Your task to perform on an android device: install app "Google Chrome" Image 0: 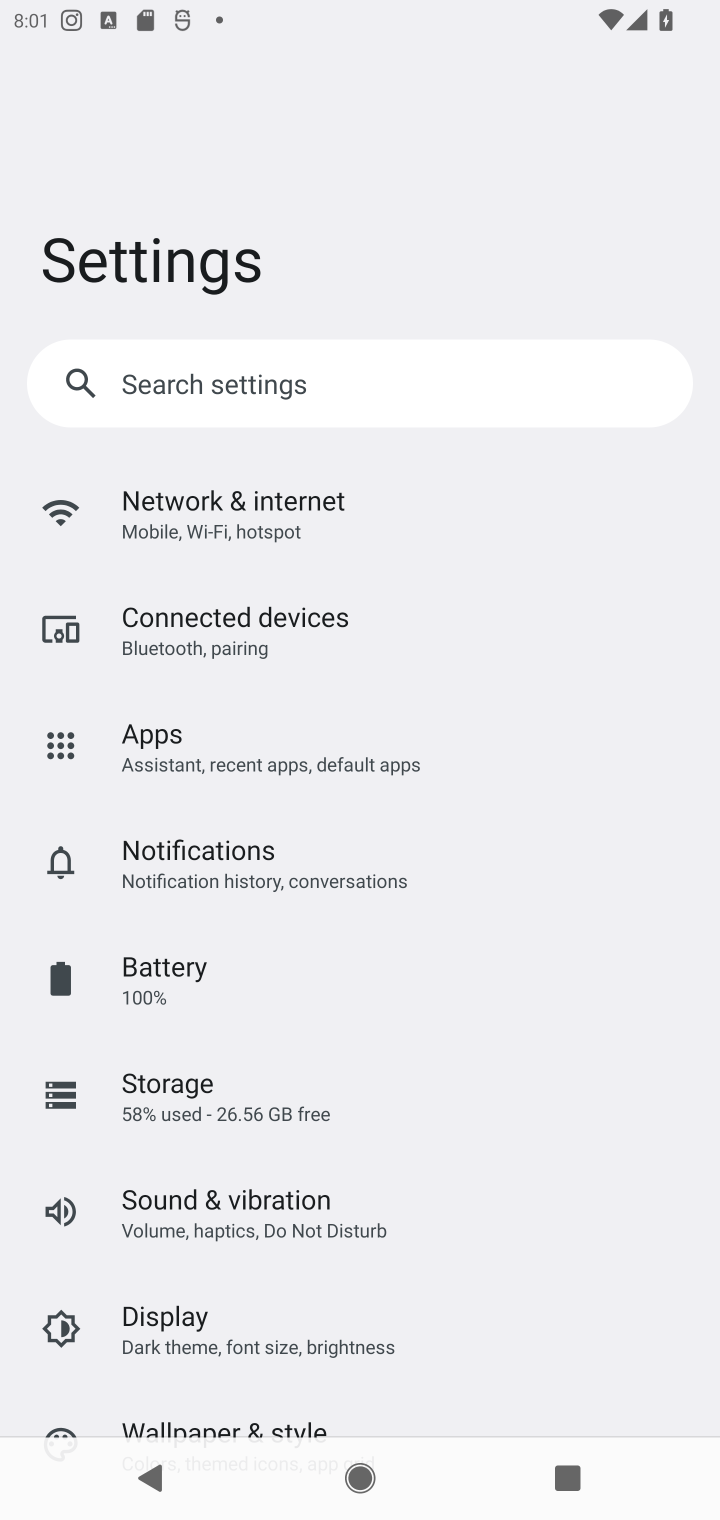
Step 0: press home button
Your task to perform on an android device: install app "Google Chrome" Image 1: 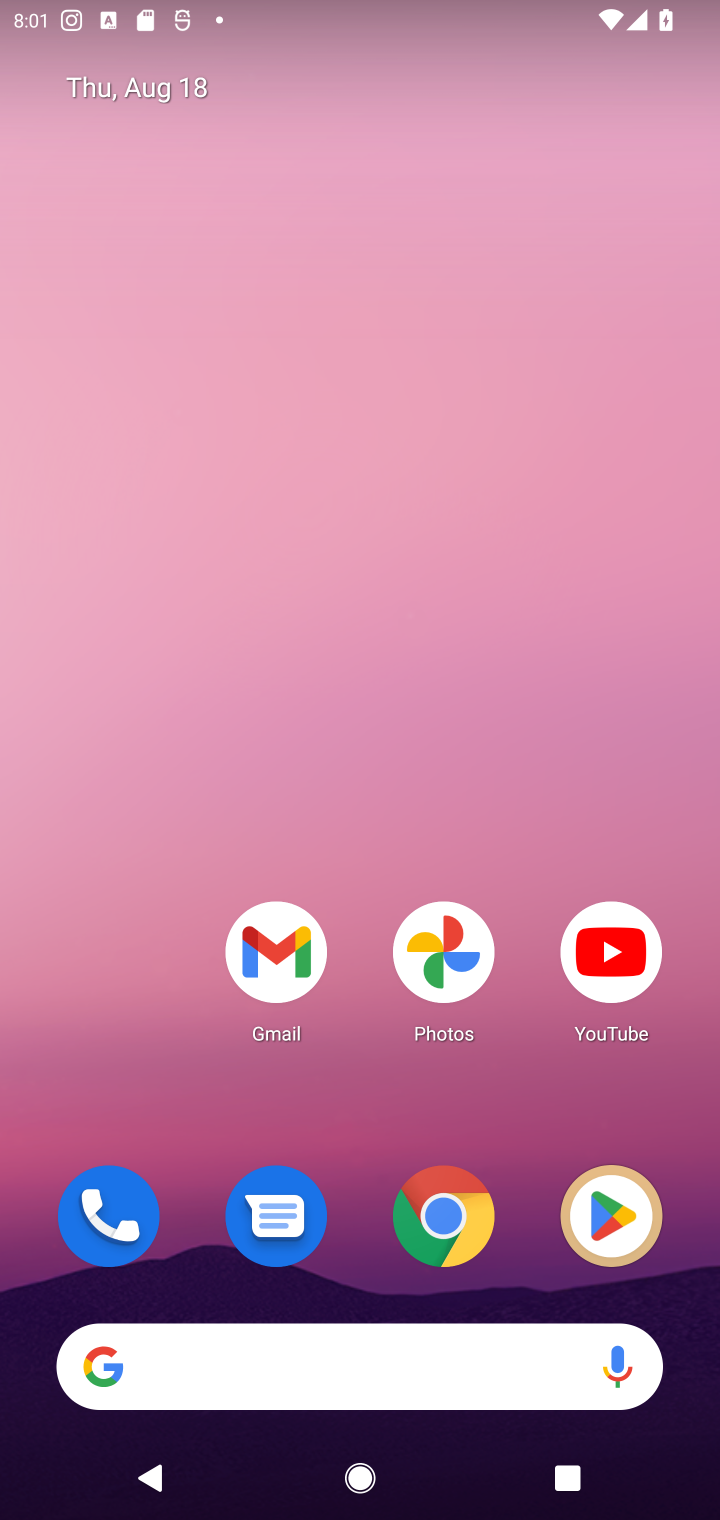
Step 1: click (631, 1226)
Your task to perform on an android device: install app "Google Chrome" Image 2: 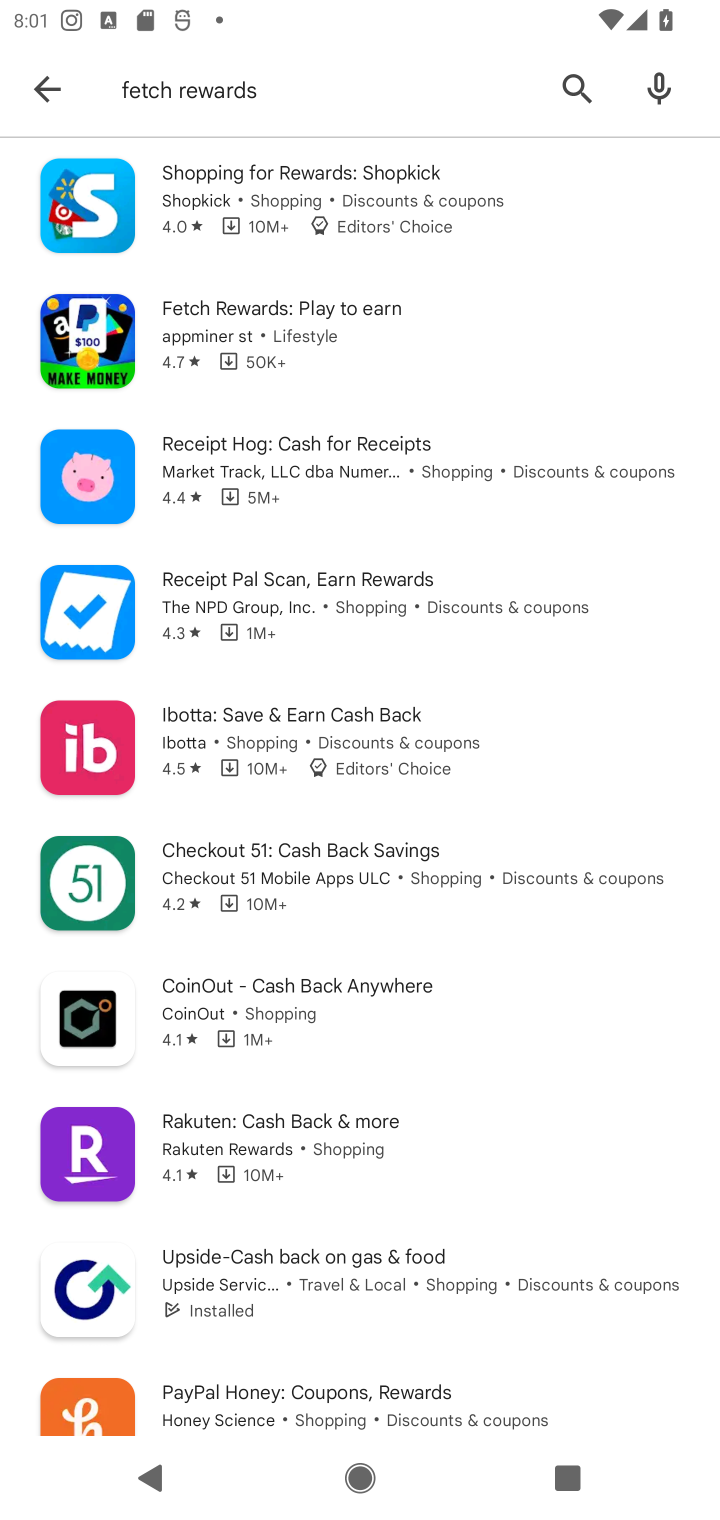
Step 2: click (578, 79)
Your task to perform on an android device: install app "Google Chrome" Image 3: 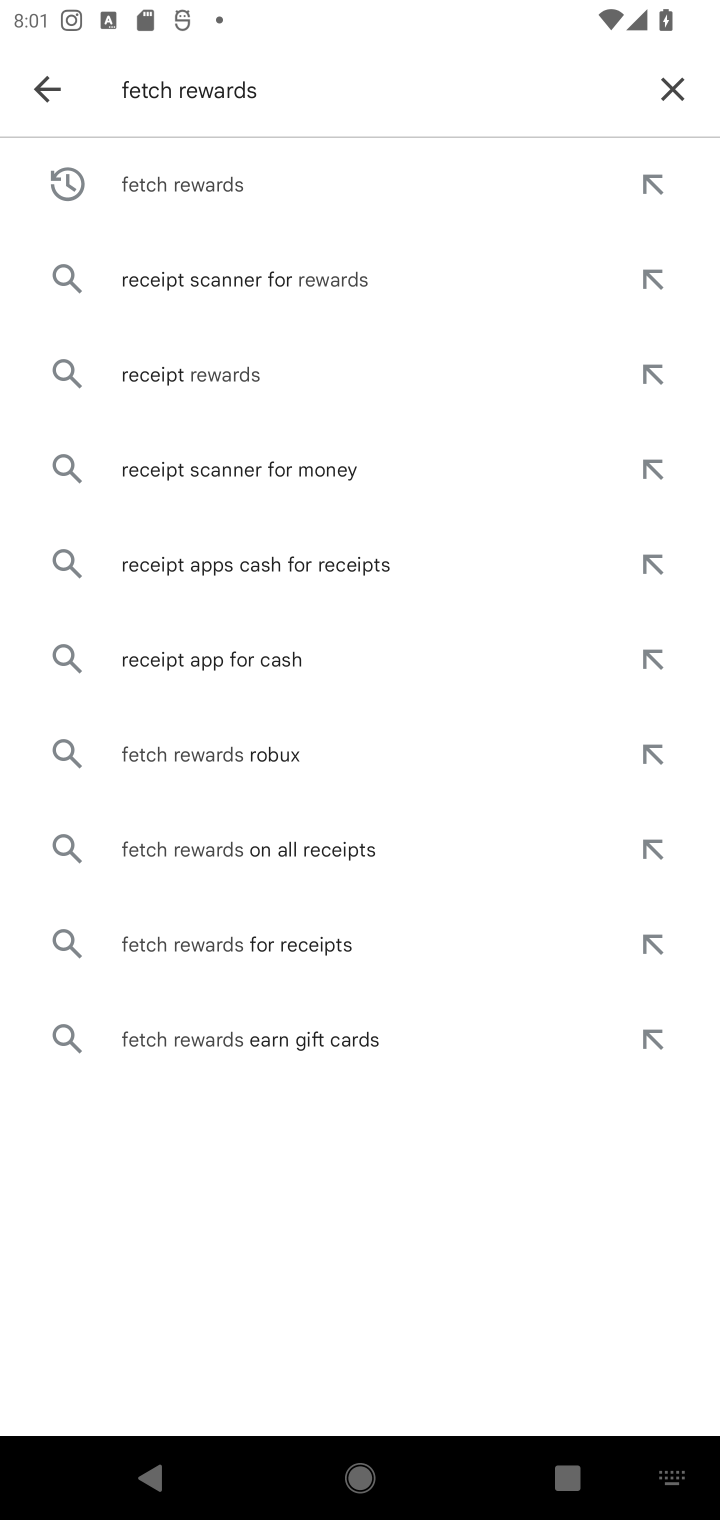
Step 3: click (660, 90)
Your task to perform on an android device: install app "Google Chrome" Image 4: 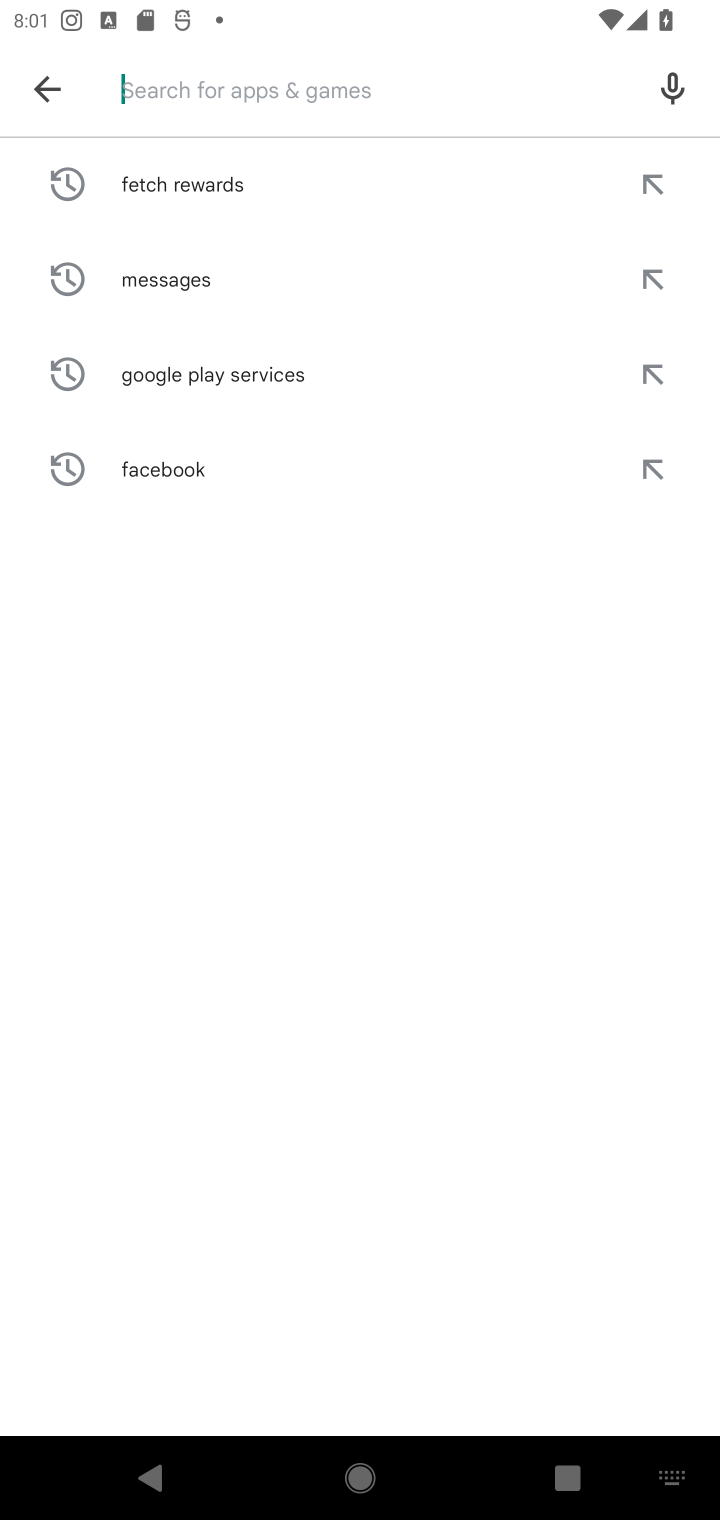
Step 4: type "Google Chrome"
Your task to perform on an android device: install app "Google Chrome" Image 5: 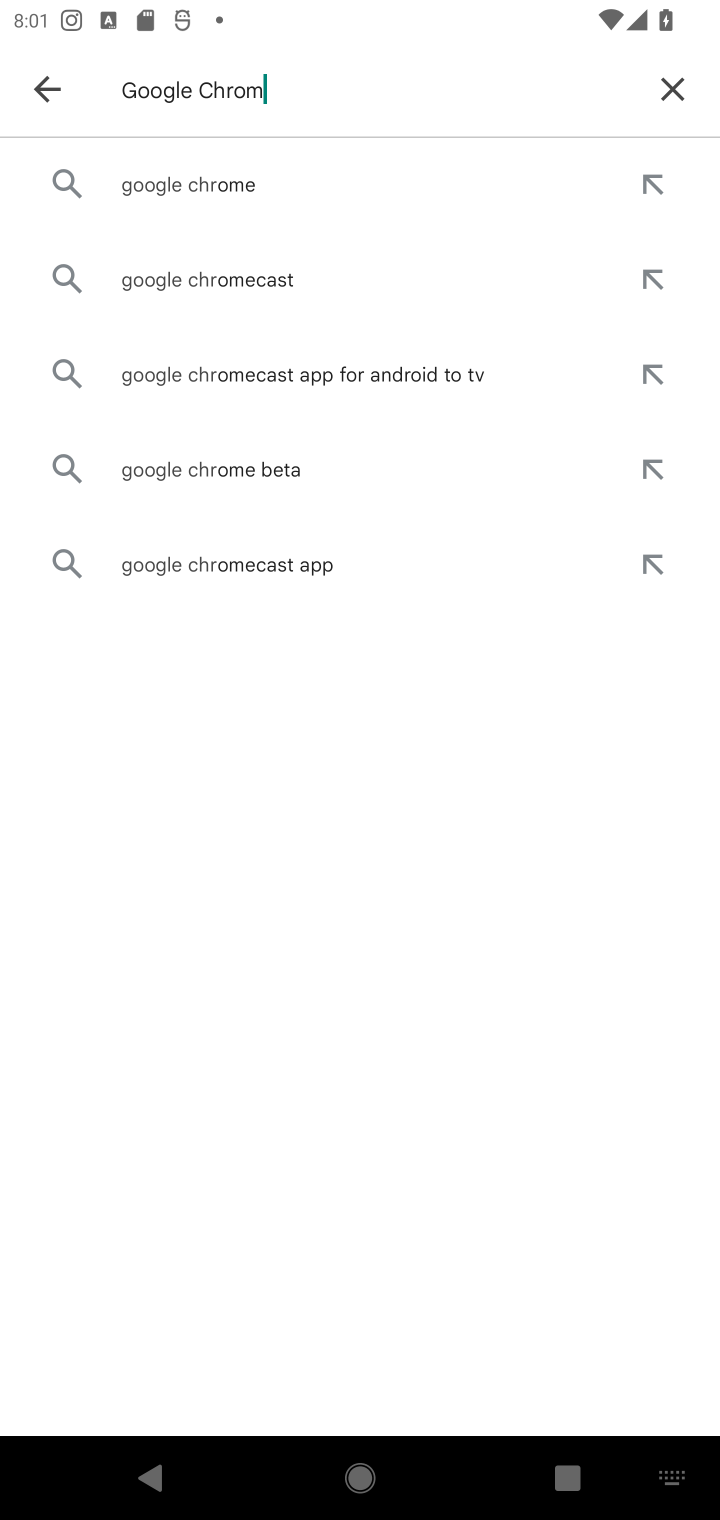
Step 5: type ""
Your task to perform on an android device: install app "Google Chrome" Image 6: 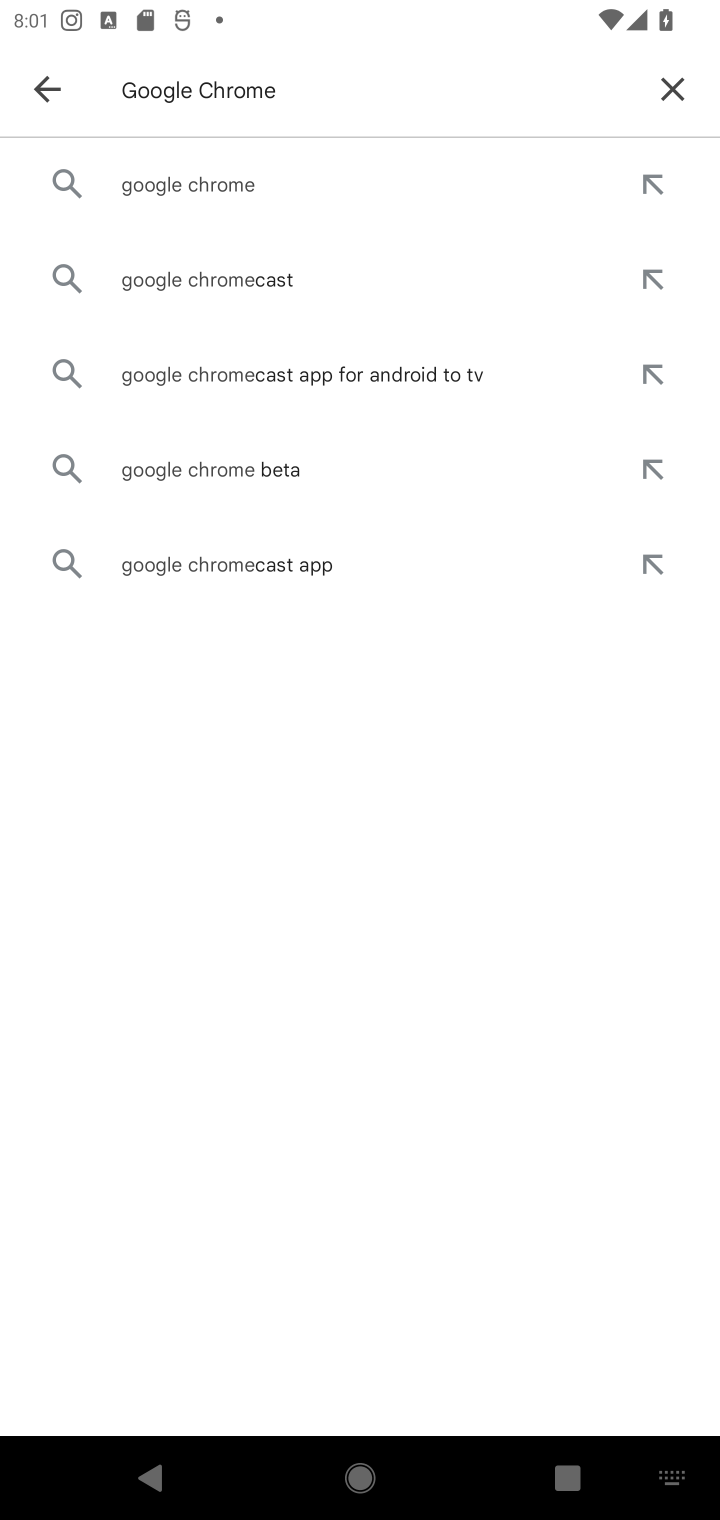
Step 6: click (292, 183)
Your task to perform on an android device: install app "Google Chrome" Image 7: 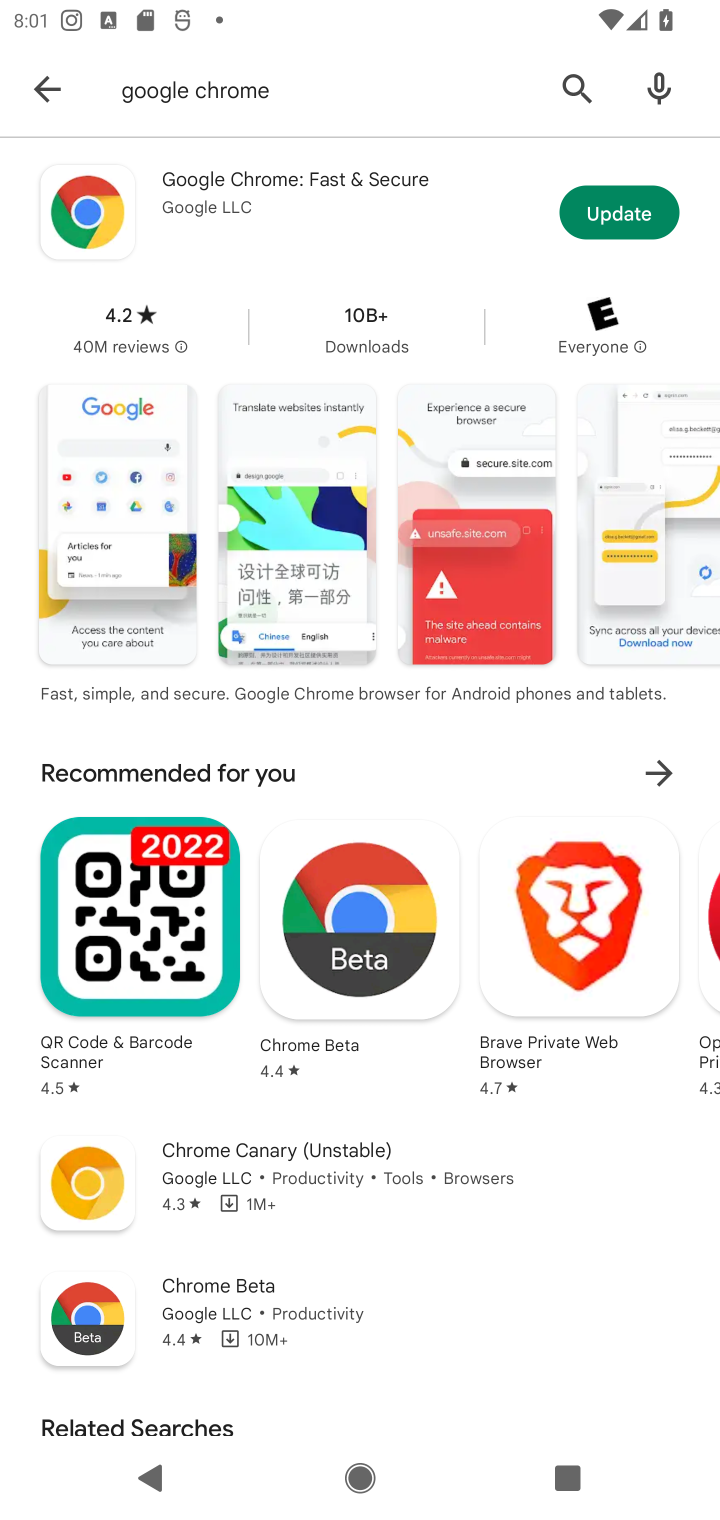
Step 7: click (274, 225)
Your task to perform on an android device: install app "Google Chrome" Image 8: 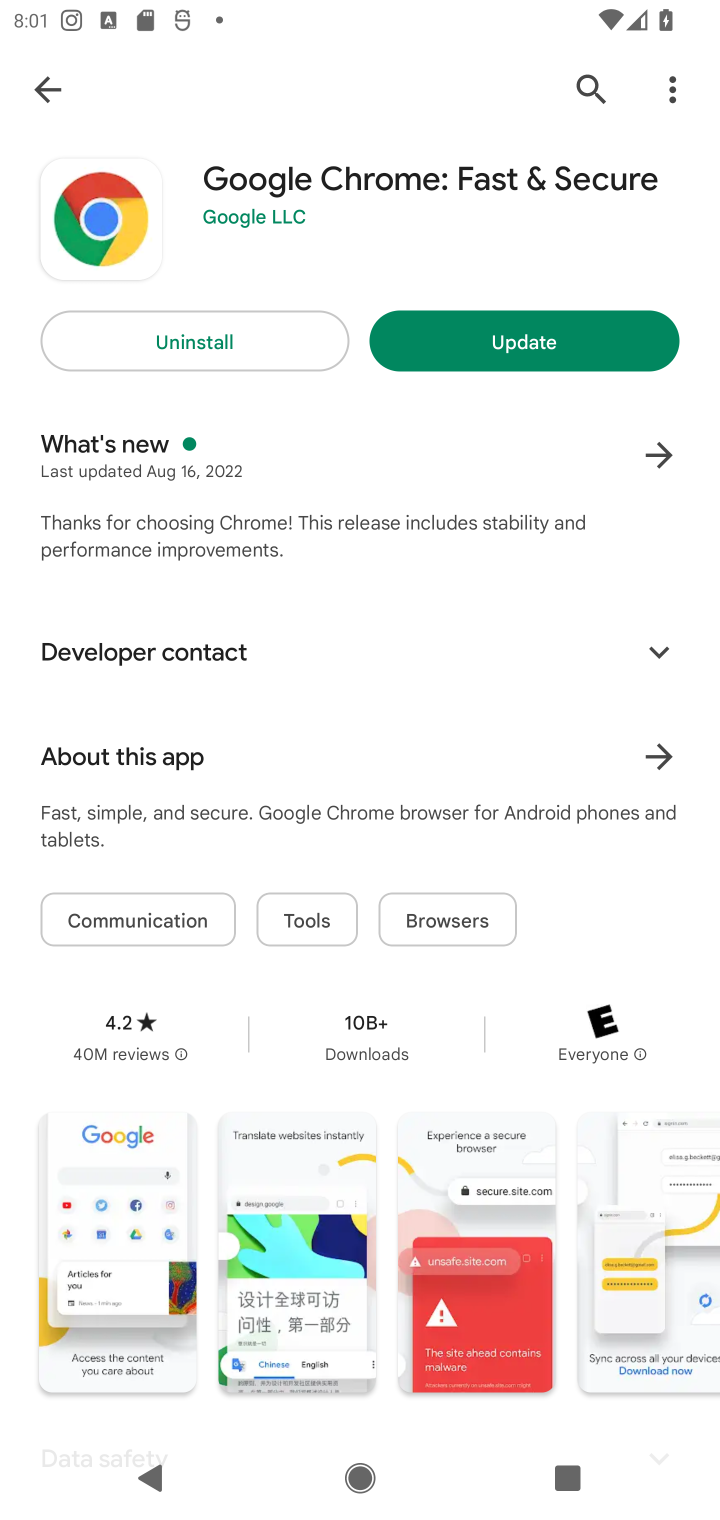
Step 8: task complete